Your task to perform on an android device: Find coffee shops on Maps Image 0: 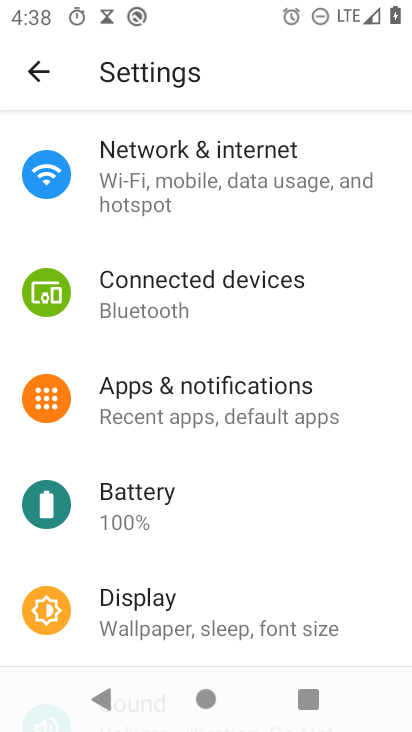
Step 0: press home button
Your task to perform on an android device: Find coffee shops on Maps Image 1: 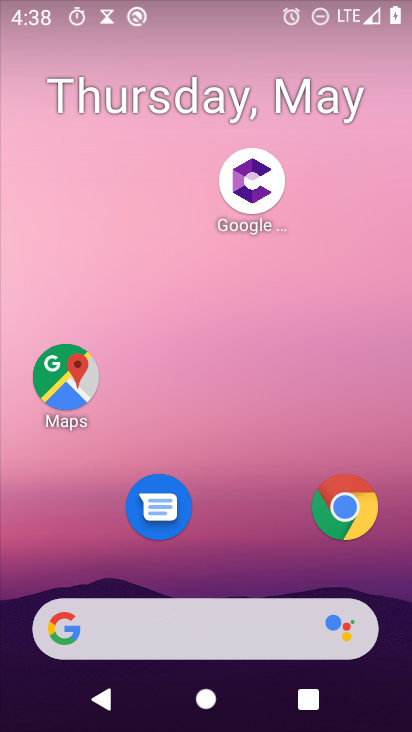
Step 1: click (64, 374)
Your task to perform on an android device: Find coffee shops on Maps Image 2: 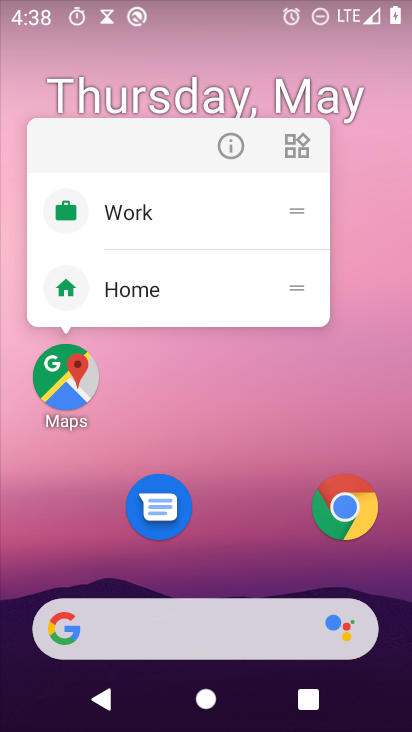
Step 2: click (62, 383)
Your task to perform on an android device: Find coffee shops on Maps Image 3: 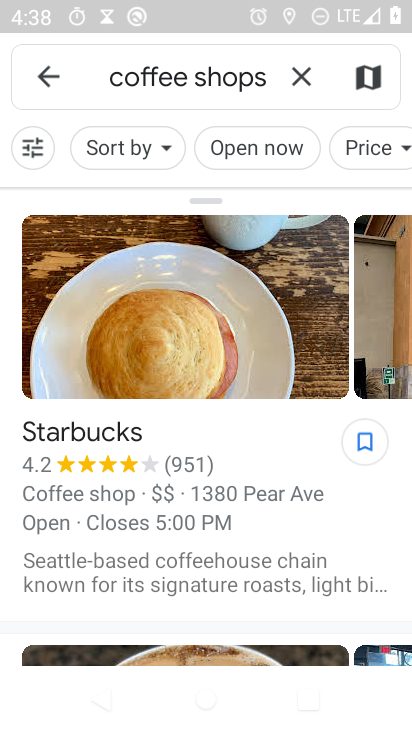
Step 3: task complete